Your task to perform on an android device: Check the weather Image 0: 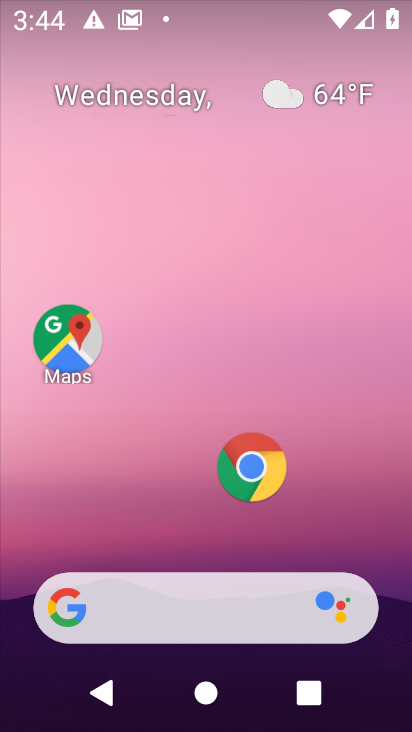
Step 0: drag from (173, 514) to (168, 238)
Your task to perform on an android device: Check the weather Image 1: 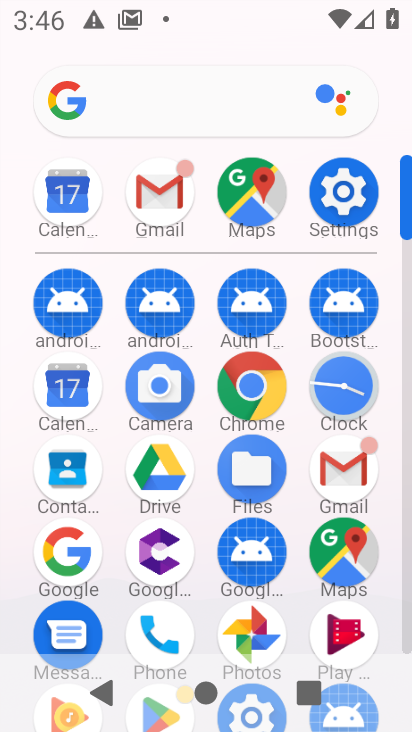
Step 1: click (168, 97)
Your task to perform on an android device: Check the weather Image 2: 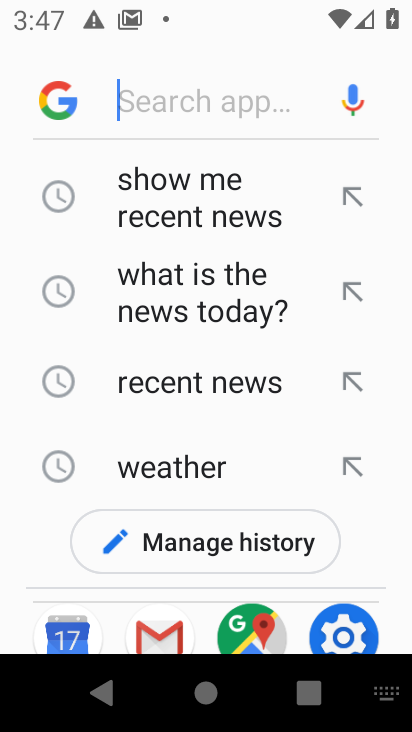
Step 2: type "Check the weather"
Your task to perform on an android device: Check the weather Image 3: 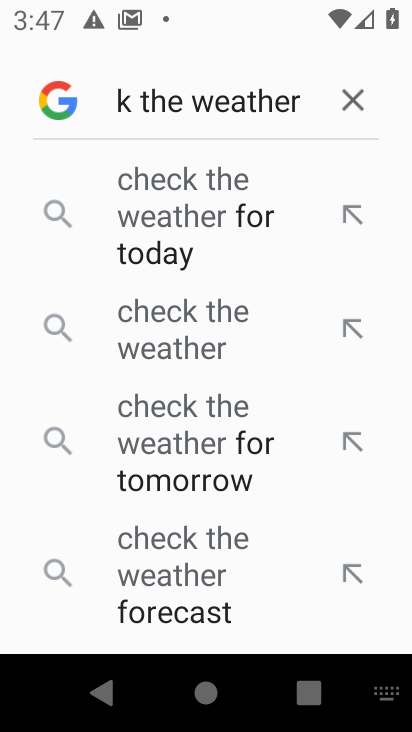
Step 3: press enter
Your task to perform on an android device: Check the weather Image 4: 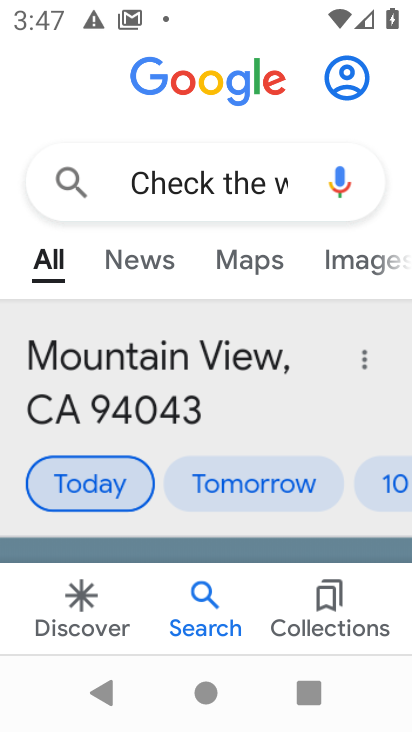
Step 4: task complete